Your task to perform on an android device: turn on sleep mode Image 0: 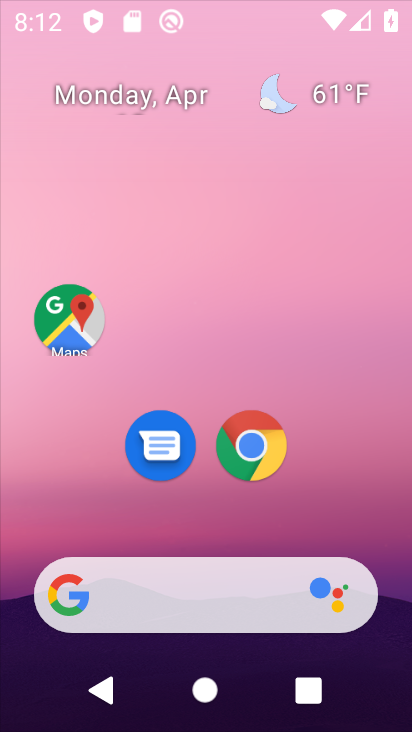
Step 0: click (315, 163)
Your task to perform on an android device: turn on sleep mode Image 1: 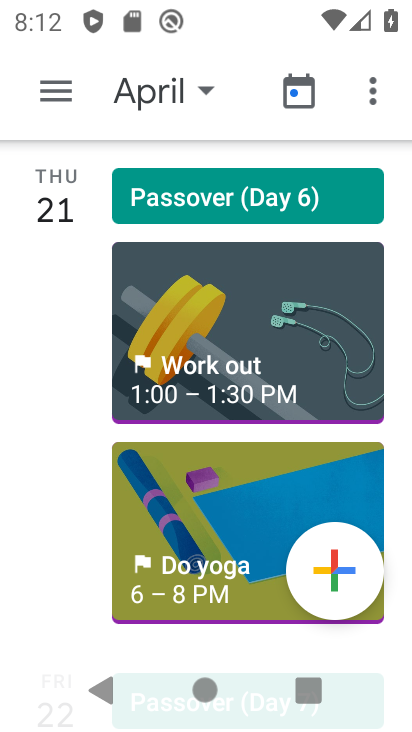
Step 1: press home button
Your task to perform on an android device: turn on sleep mode Image 2: 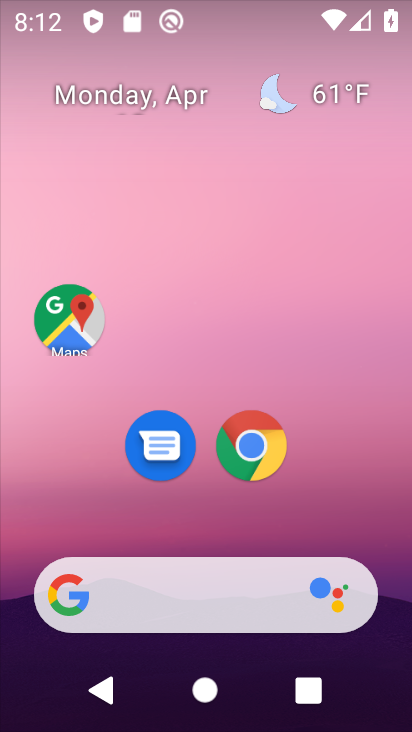
Step 2: drag from (190, 507) to (227, 160)
Your task to perform on an android device: turn on sleep mode Image 3: 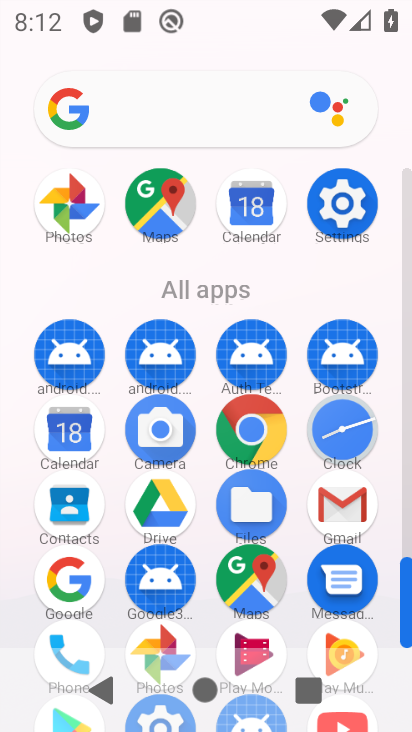
Step 3: click (332, 200)
Your task to perform on an android device: turn on sleep mode Image 4: 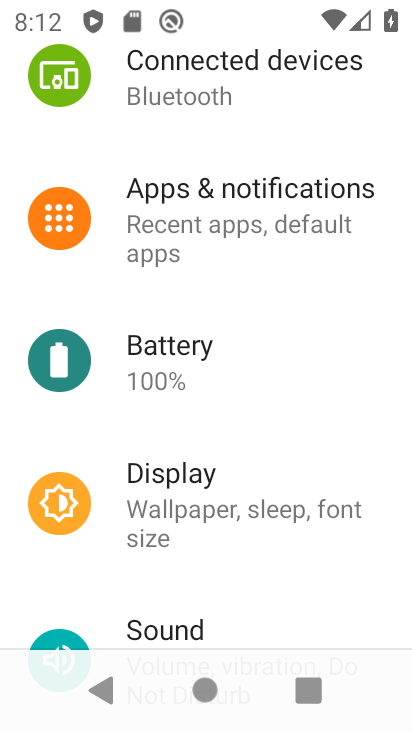
Step 4: click (196, 490)
Your task to perform on an android device: turn on sleep mode Image 5: 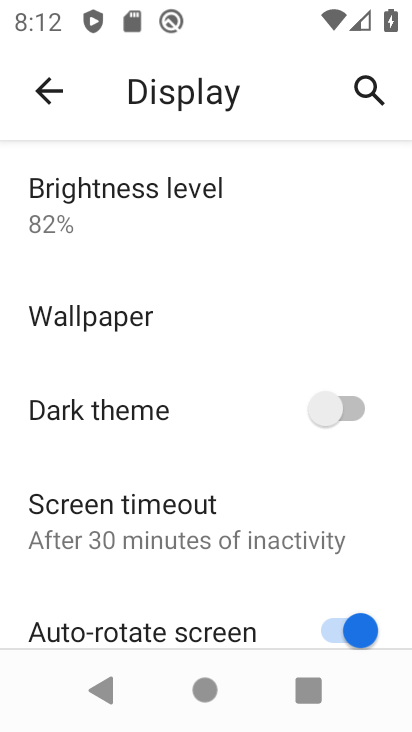
Step 5: task complete